Your task to perform on an android device: open sync settings in chrome Image 0: 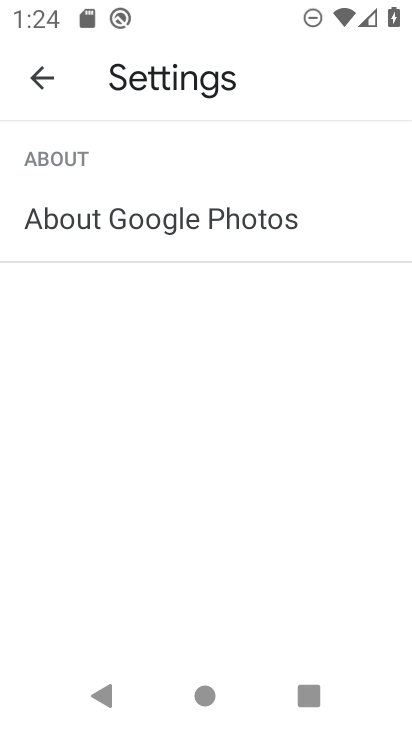
Step 0: press home button
Your task to perform on an android device: open sync settings in chrome Image 1: 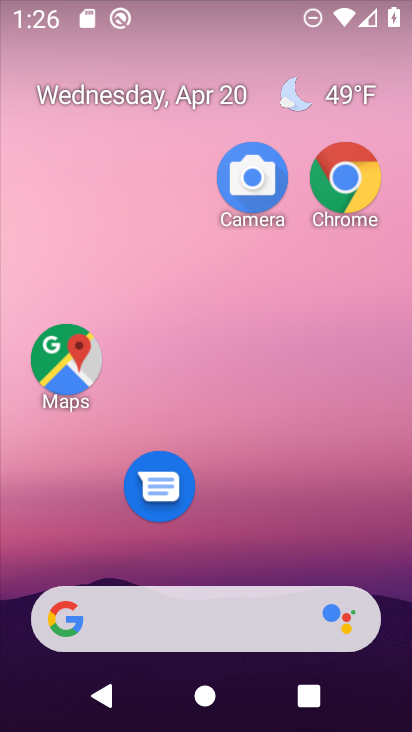
Step 1: drag from (246, 634) to (368, 227)
Your task to perform on an android device: open sync settings in chrome Image 2: 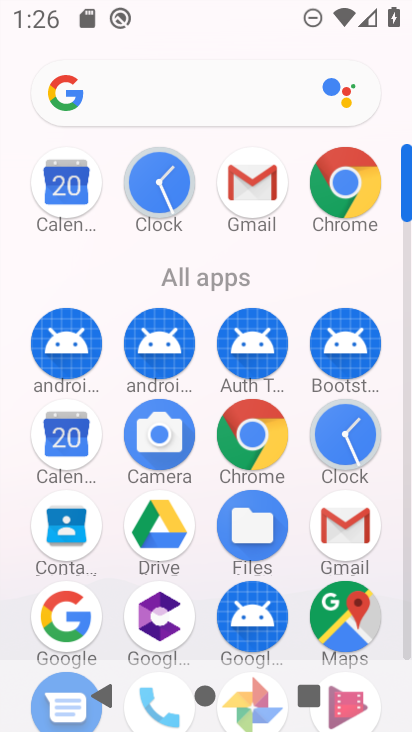
Step 2: click (338, 192)
Your task to perform on an android device: open sync settings in chrome Image 3: 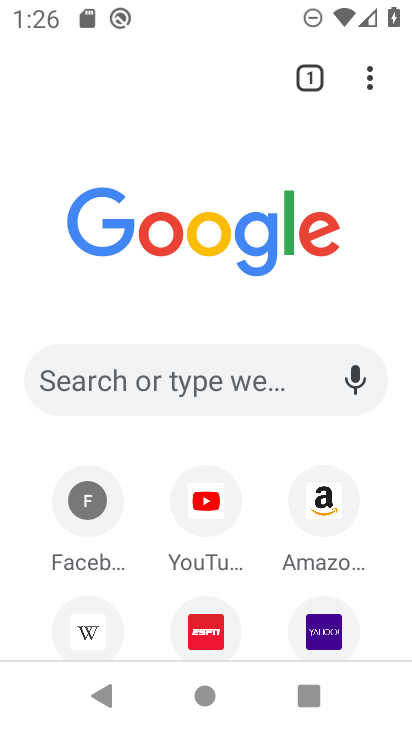
Step 3: click (367, 82)
Your task to perform on an android device: open sync settings in chrome Image 4: 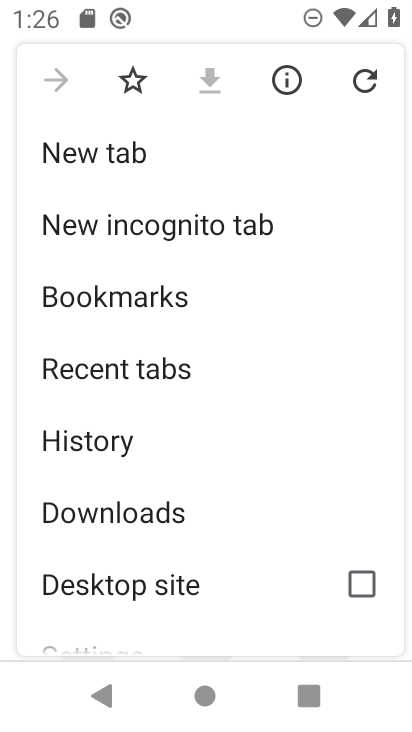
Step 4: drag from (185, 477) to (187, 425)
Your task to perform on an android device: open sync settings in chrome Image 5: 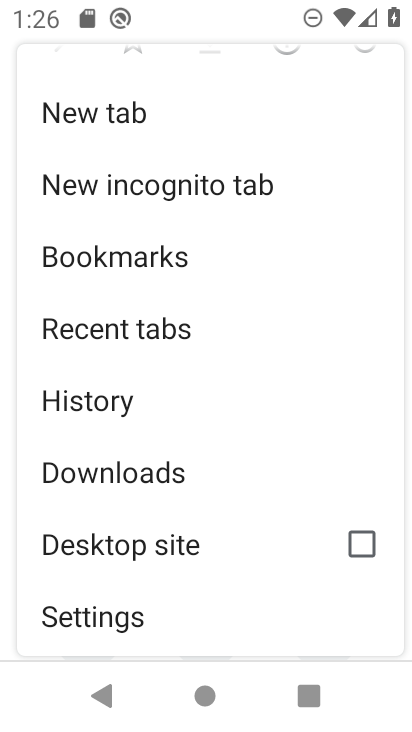
Step 5: click (79, 608)
Your task to perform on an android device: open sync settings in chrome Image 6: 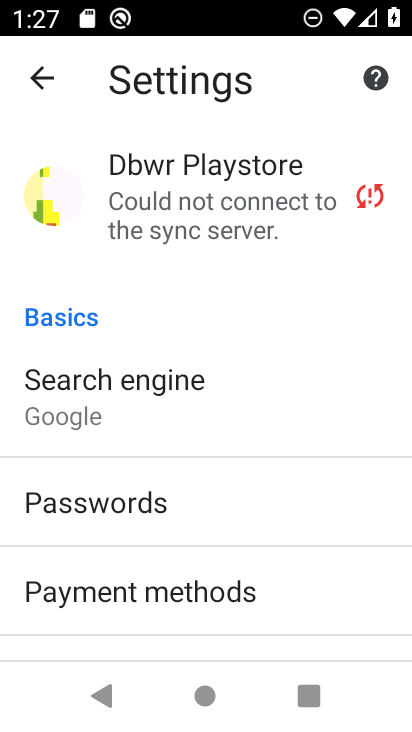
Step 6: drag from (144, 497) to (243, 139)
Your task to perform on an android device: open sync settings in chrome Image 7: 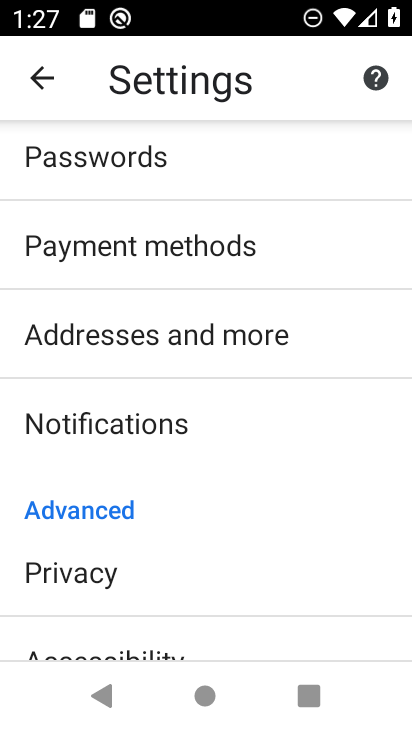
Step 7: drag from (146, 533) to (233, 219)
Your task to perform on an android device: open sync settings in chrome Image 8: 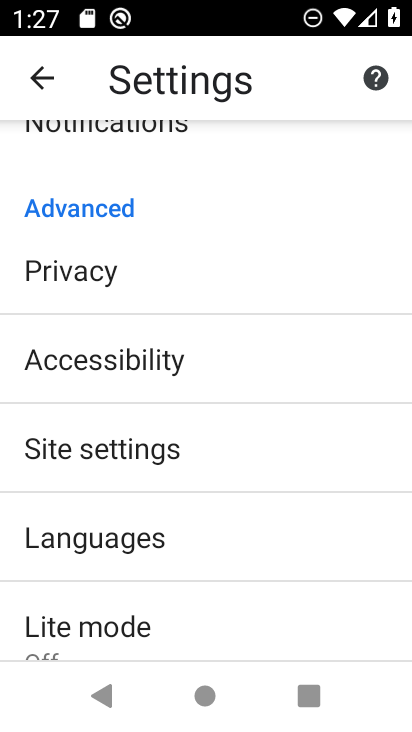
Step 8: drag from (121, 498) to (199, 278)
Your task to perform on an android device: open sync settings in chrome Image 9: 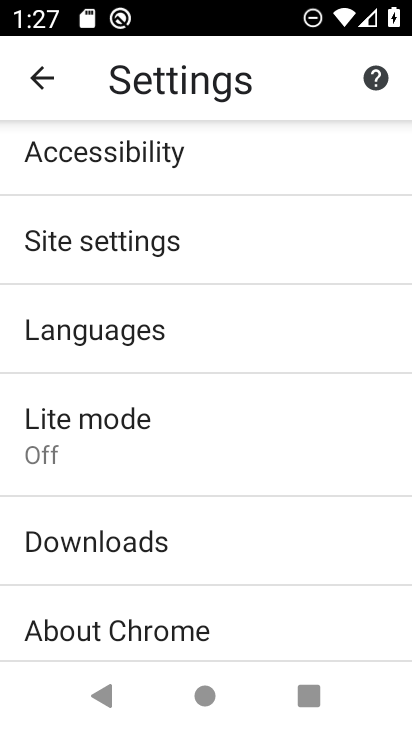
Step 9: click (96, 241)
Your task to perform on an android device: open sync settings in chrome Image 10: 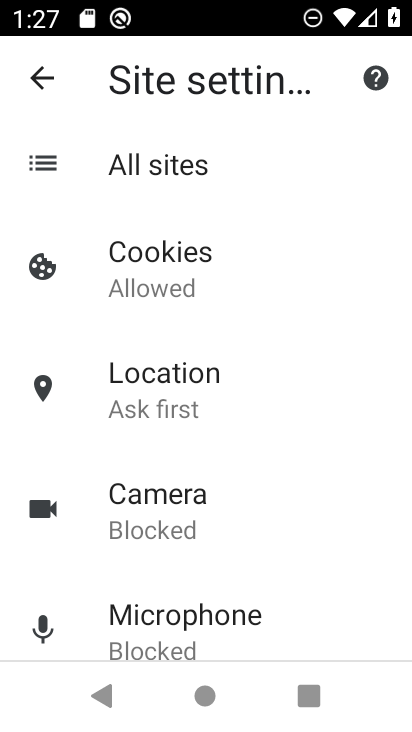
Step 10: drag from (182, 514) to (275, 174)
Your task to perform on an android device: open sync settings in chrome Image 11: 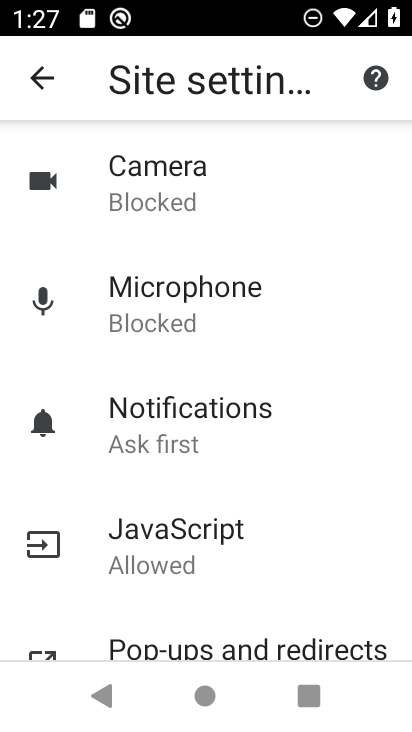
Step 11: drag from (201, 511) to (261, 248)
Your task to perform on an android device: open sync settings in chrome Image 12: 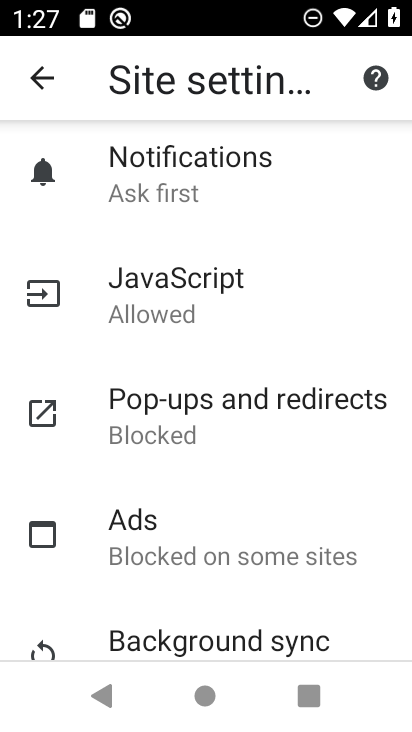
Step 12: click (163, 624)
Your task to perform on an android device: open sync settings in chrome Image 13: 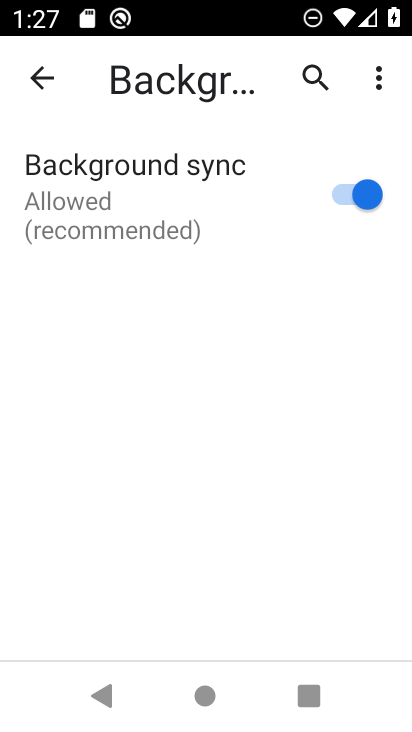
Step 13: task complete